Your task to perform on an android device: Is it going to rain today? Image 0: 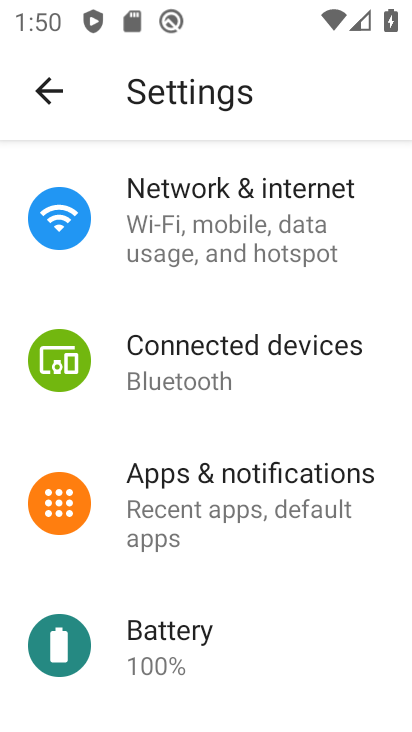
Step 0: press home button
Your task to perform on an android device: Is it going to rain today? Image 1: 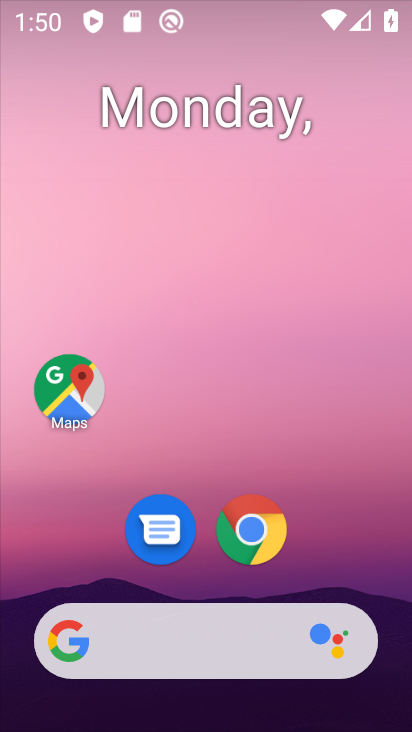
Step 1: click (195, 661)
Your task to perform on an android device: Is it going to rain today? Image 2: 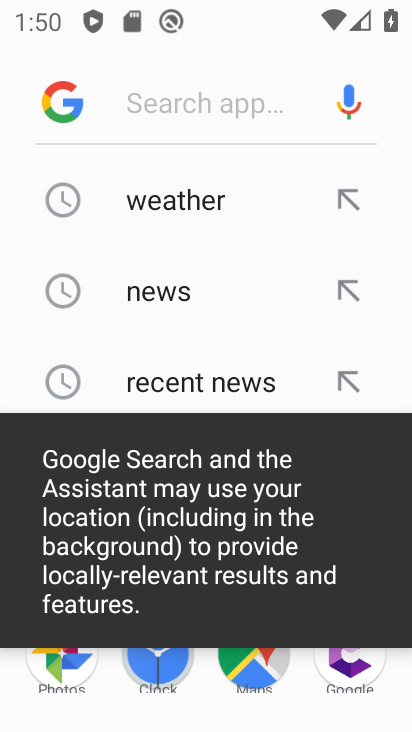
Step 2: type "Is it going to rain today?"
Your task to perform on an android device: Is it going to rain today? Image 3: 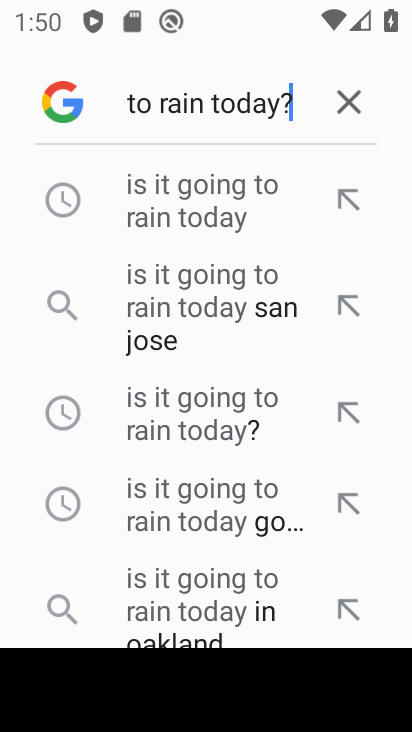
Step 3: click (243, 105)
Your task to perform on an android device: Is it going to rain today? Image 4: 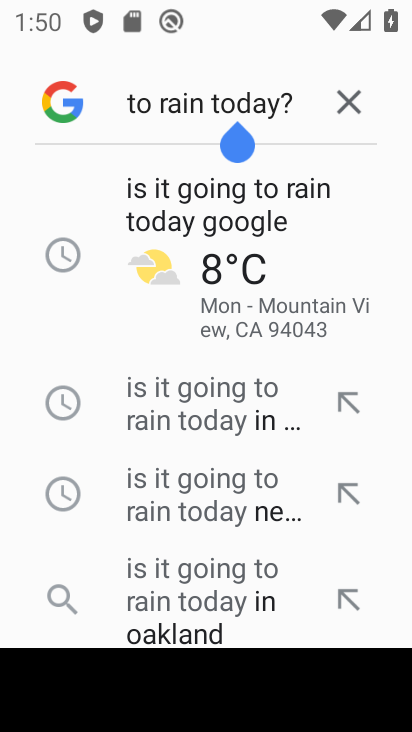
Step 4: click (272, 198)
Your task to perform on an android device: Is it going to rain today? Image 5: 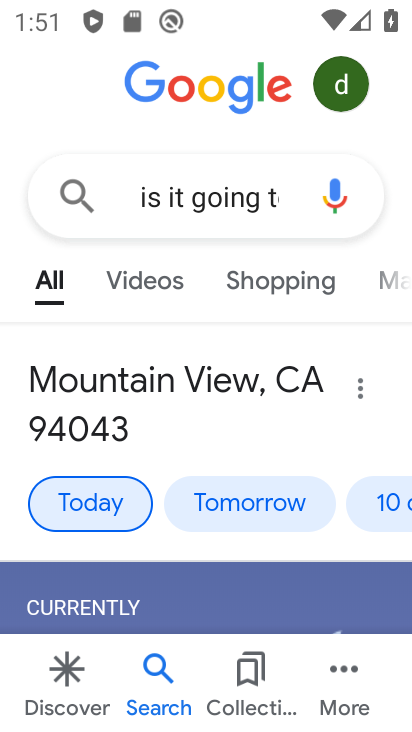
Step 5: task complete